Your task to perform on an android device: turn off location Image 0: 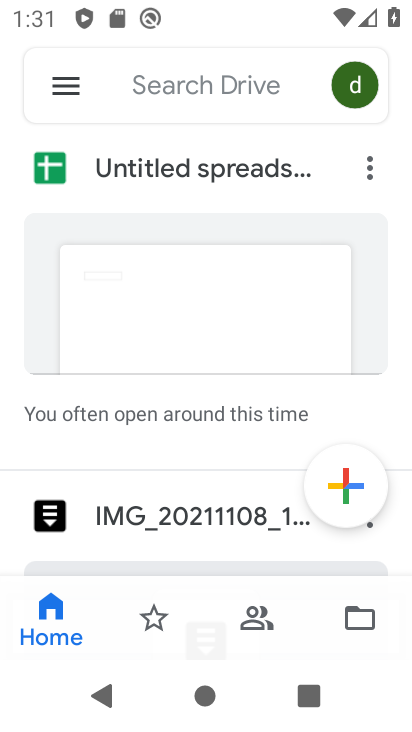
Step 0: press home button
Your task to perform on an android device: turn off location Image 1: 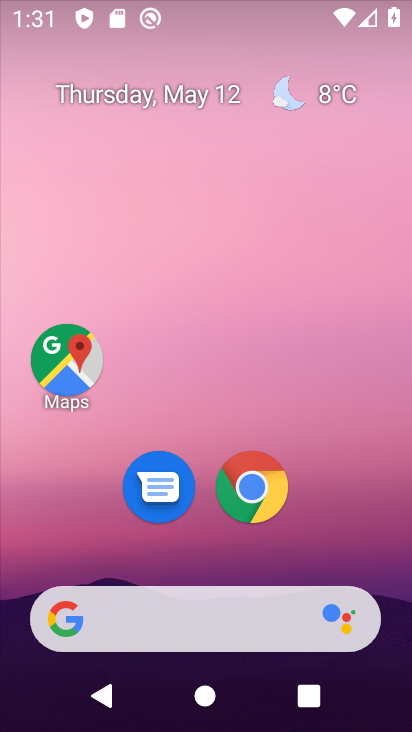
Step 1: drag from (292, 580) to (361, 48)
Your task to perform on an android device: turn off location Image 2: 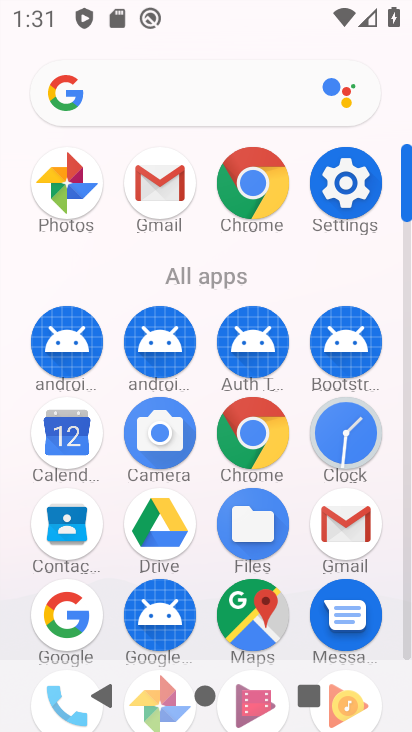
Step 2: click (339, 159)
Your task to perform on an android device: turn off location Image 3: 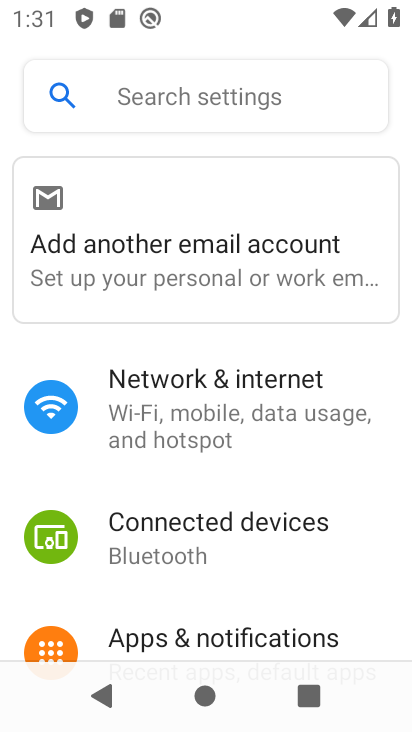
Step 3: drag from (200, 573) to (216, 241)
Your task to perform on an android device: turn off location Image 4: 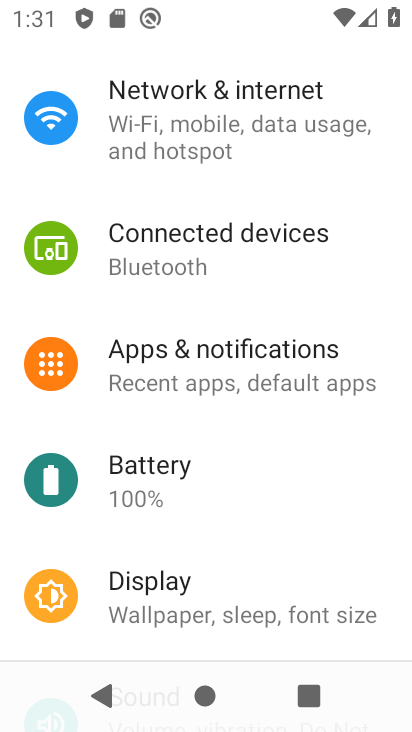
Step 4: drag from (244, 553) to (239, 209)
Your task to perform on an android device: turn off location Image 5: 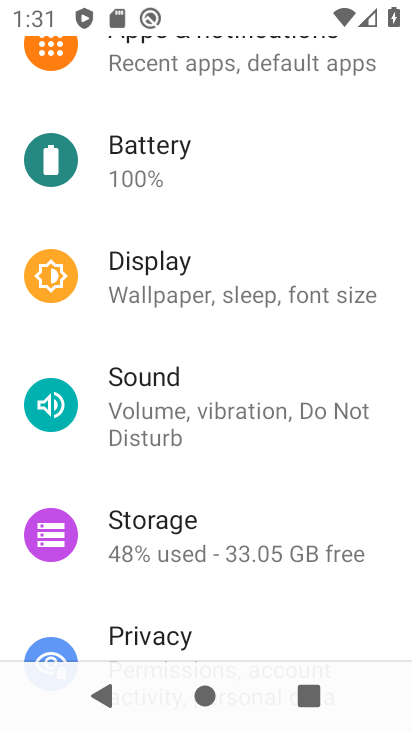
Step 5: drag from (167, 540) to (221, 236)
Your task to perform on an android device: turn off location Image 6: 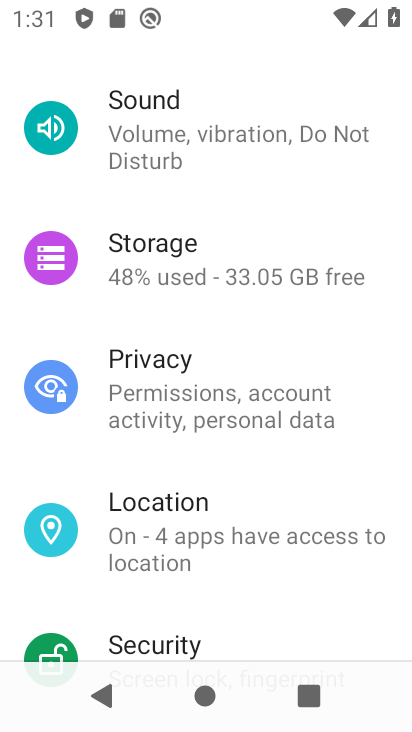
Step 6: click (203, 537)
Your task to perform on an android device: turn off location Image 7: 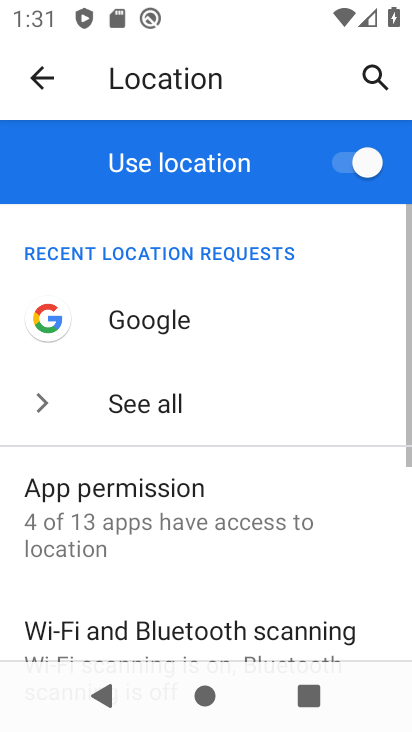
Step 7: click (335, 176)
Your task to perform on an android device: turn off location Image 8: 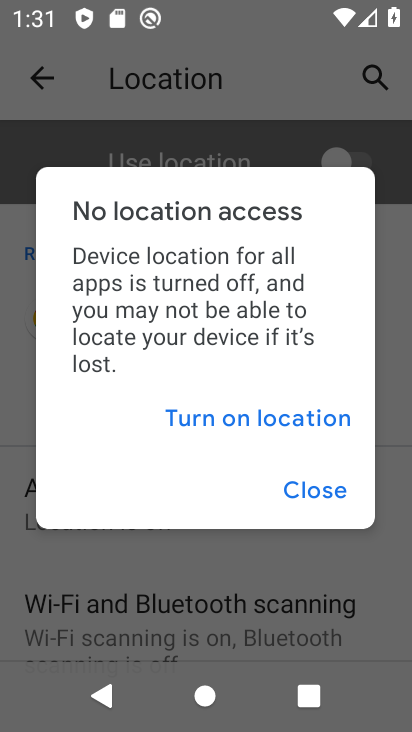
Step 8: task complete